Your task to perform on an android device: Open Google Maps Image 0: 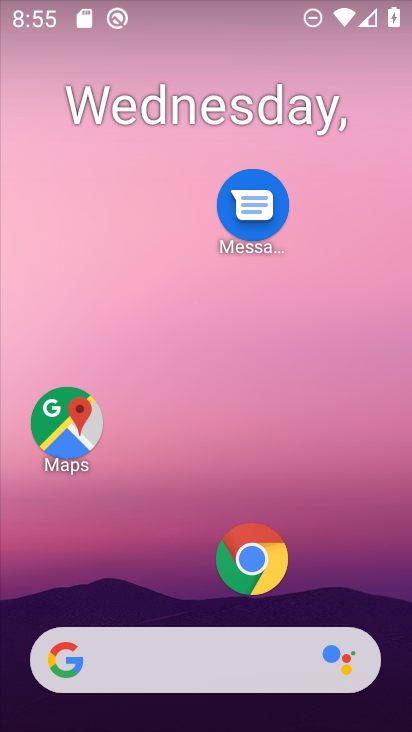
Step 0: drag from (301, 581) to (295, 187)
Your task to perform on an android device: Open Google Maps Image 1: 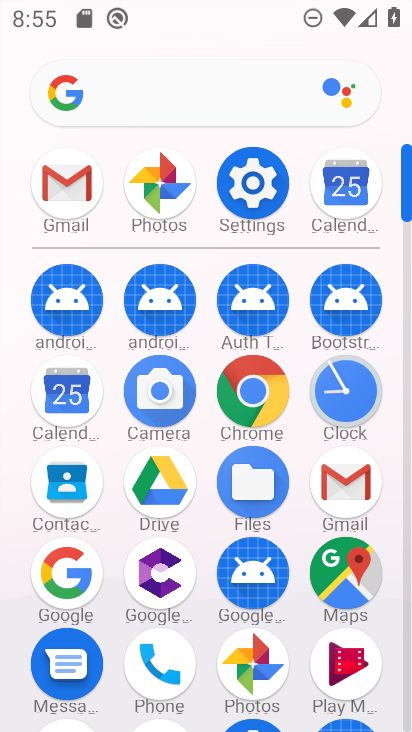
Step 1: drag from (253, 550) to (279, 188)
Your task to perform on an android device: Open Google Maps Image 2: 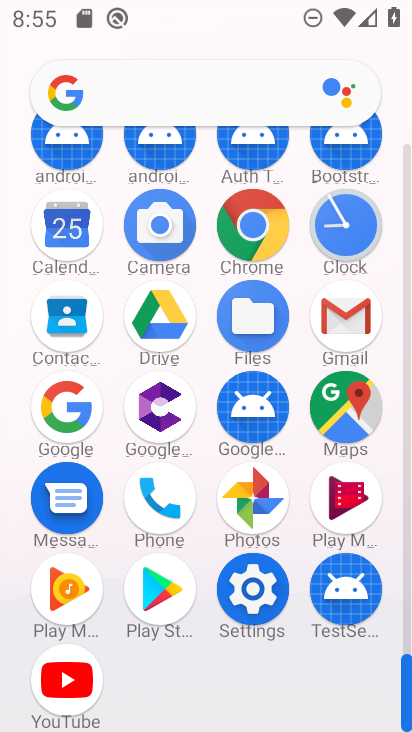
Step 2: click (351, 413)
Your task to perform on an android device: Open Google Maps Image 3: 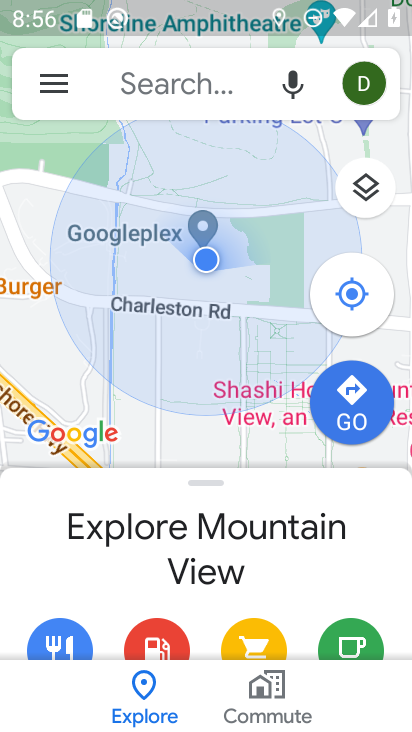
Step 3: task complete